Your task to perform on an android device: Go to eBay Image 0: 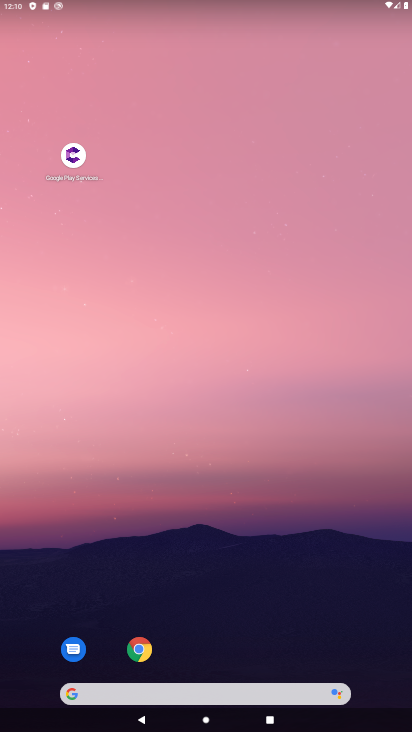
Step 0: click (134, 646)
Your task to perform on an android device: Go to eBay Image 1: 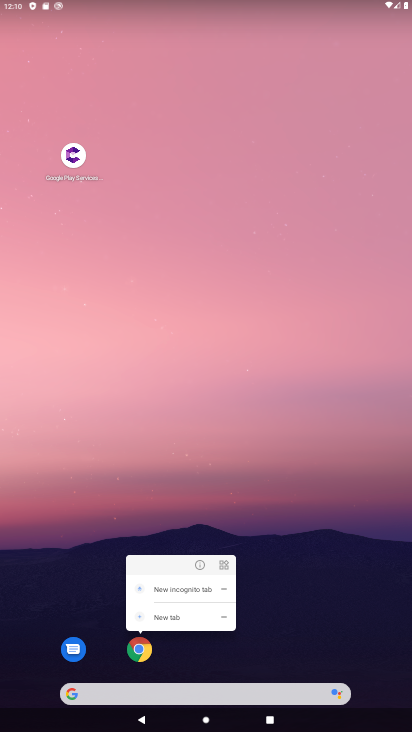
Step 1: click (140, 646)
Your task to perform on an android device: Go to eBay Image 2: 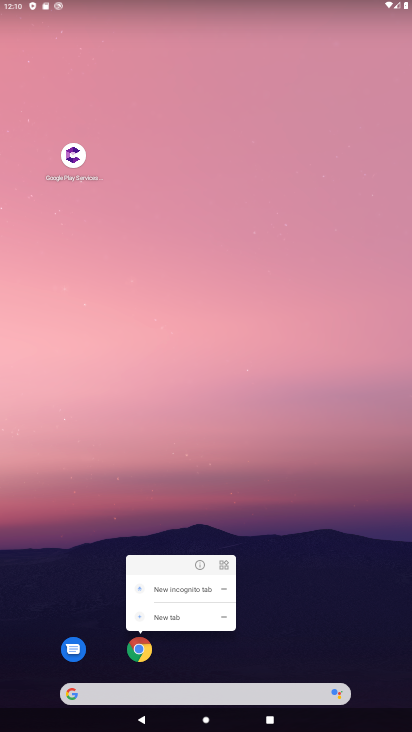
Step 2: click (143, 651)
Your task to perform on an android device: Go to eBay Image 3: 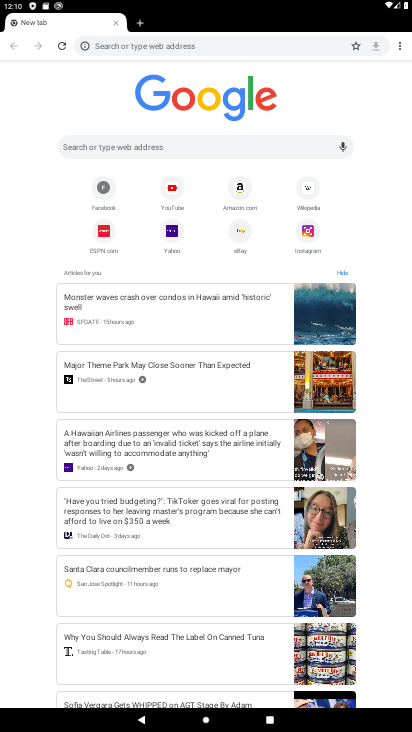
Step 3: click (247, 232)
Your task to perform on an android device: Go to eBay Image 4: 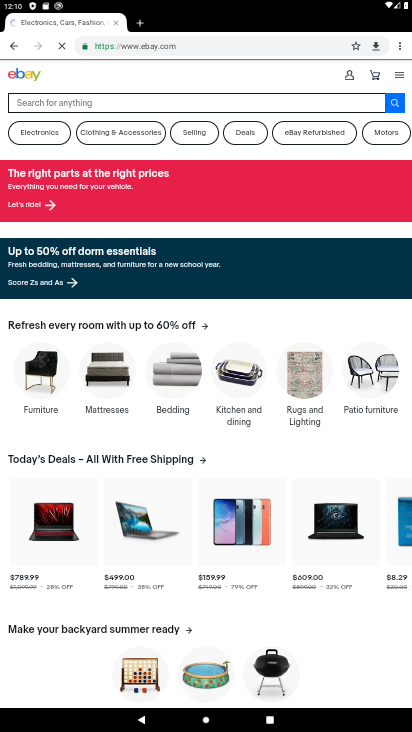
Step 4: task complete